Your task to perform on an android device: Go to internet settings Image 0: 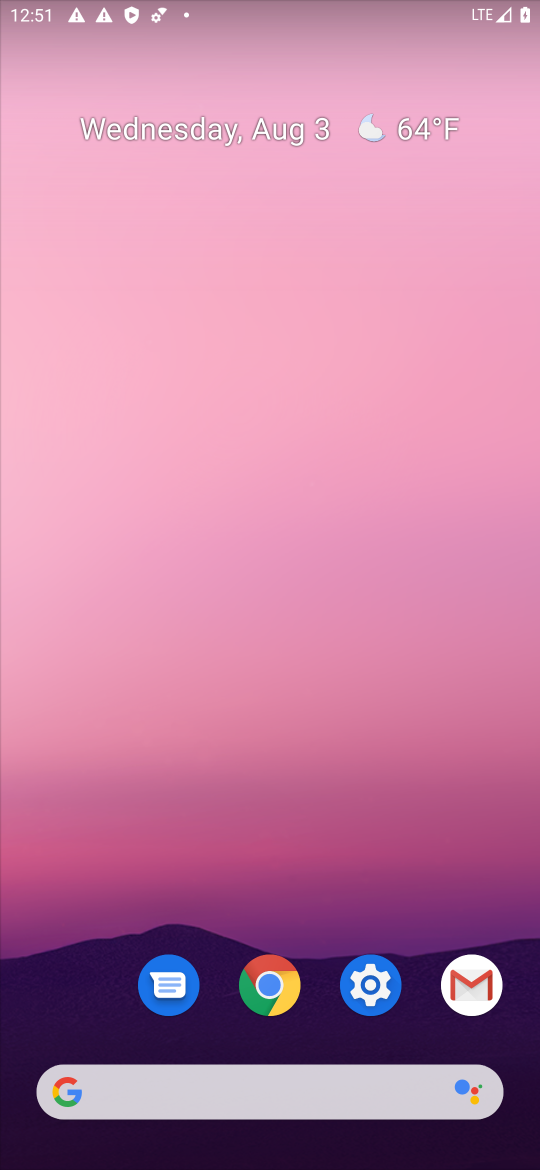
Step 0: press home button
Your task to perform on an android device: Go to internet settings Image 1: 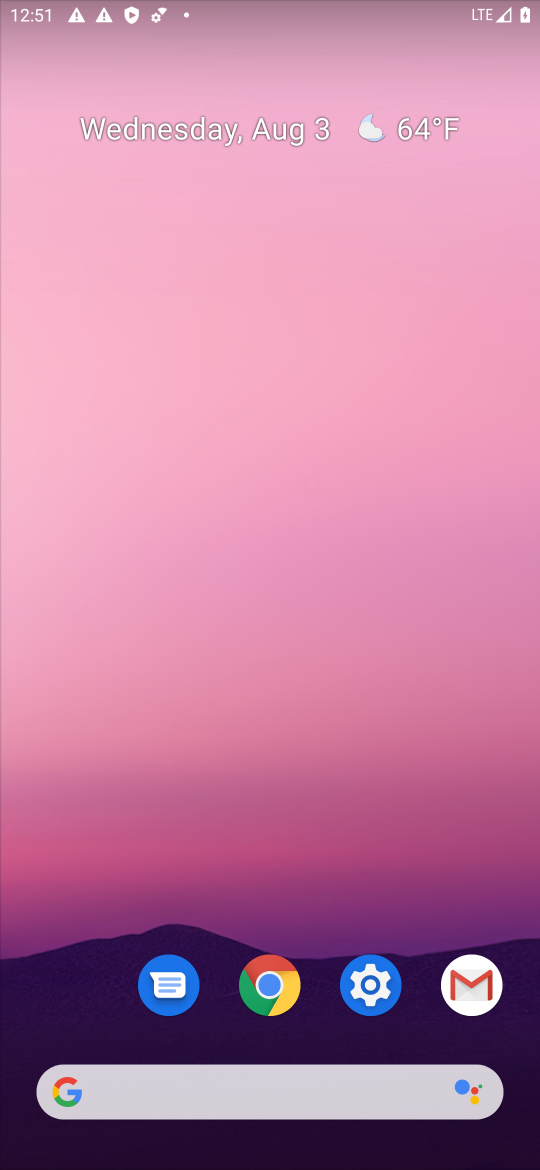
Step 1: click (371, 966)
Your task to perform on an android device: Go to internet settings Image 2: 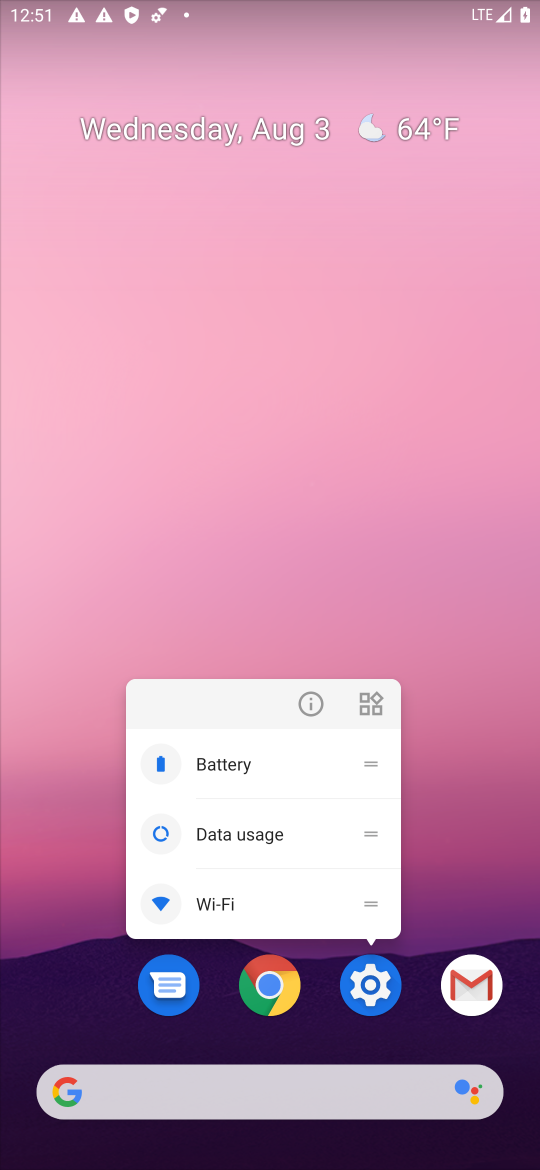
Step 2: click (384, 1004)
Your task to perform on an android device: Go to internet settings Image 3: 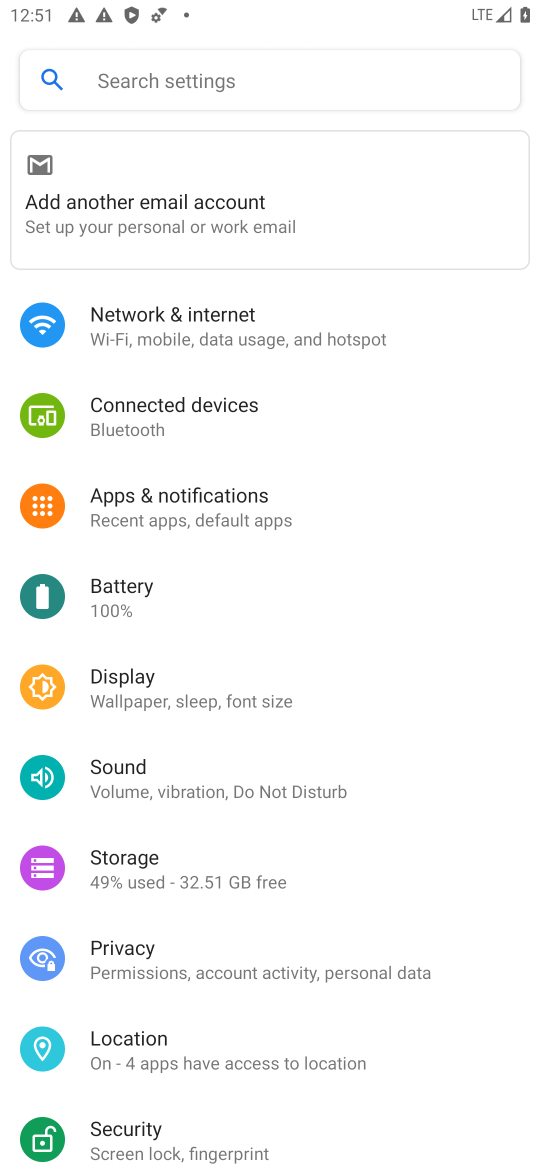
Step 3: click (204, 331)
Your task to perform on an android device: Go to internet settings Image 4: 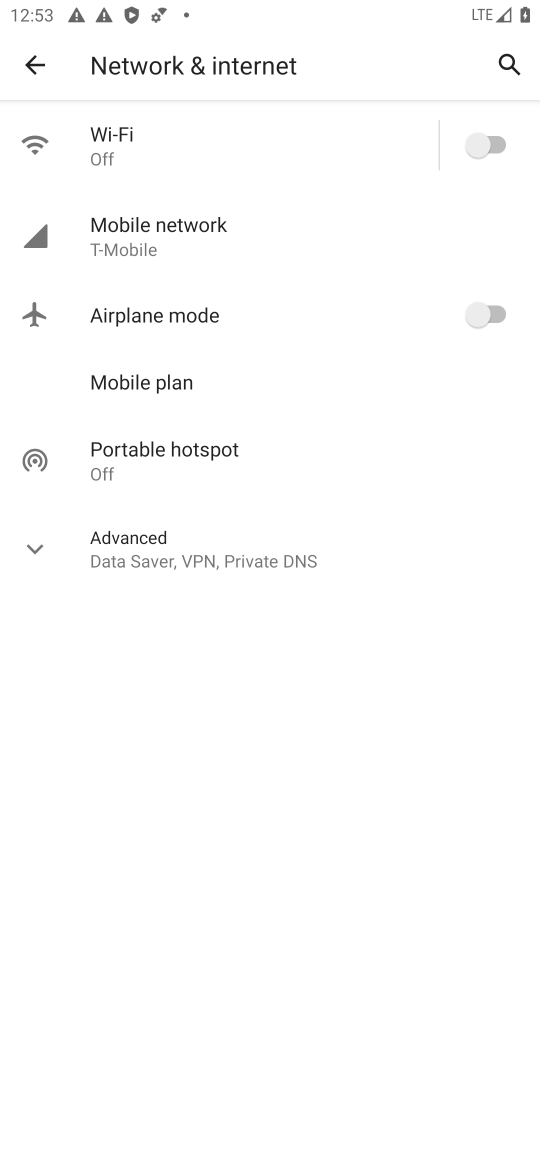
Step 4: task complete